Your task to perform on an android device: toggle pop-ups in chrome Image 0: 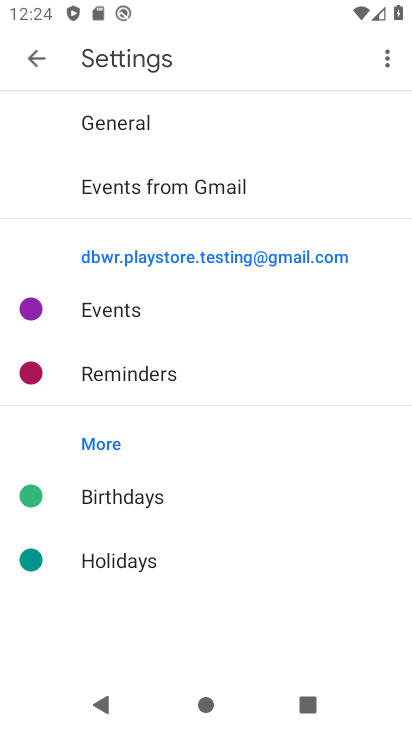
Step 0: press back button
Your task to perform on an android device: toggle pop-ups in chrome Image 1: 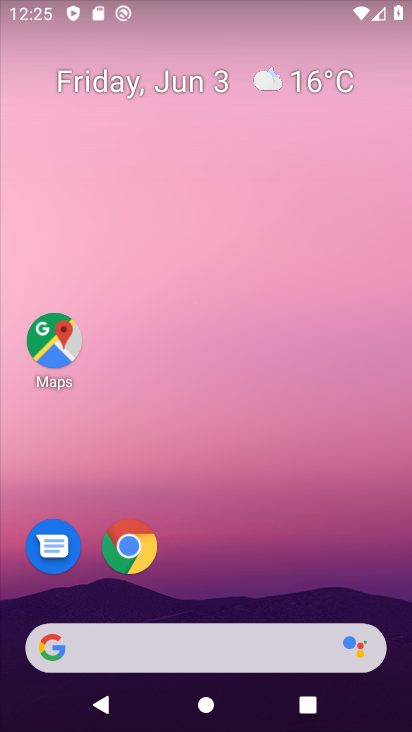
Step 1: click (137, 546)
Your task to perform on an android device: toggle pop-ups in chrome Image 2: 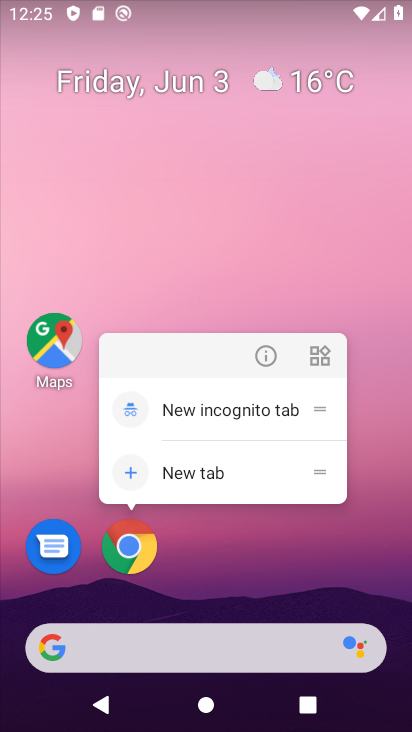
Step 2: click (134, 560)
Your task to perform on an android device: toggle pop-ups in chrome Image 3: 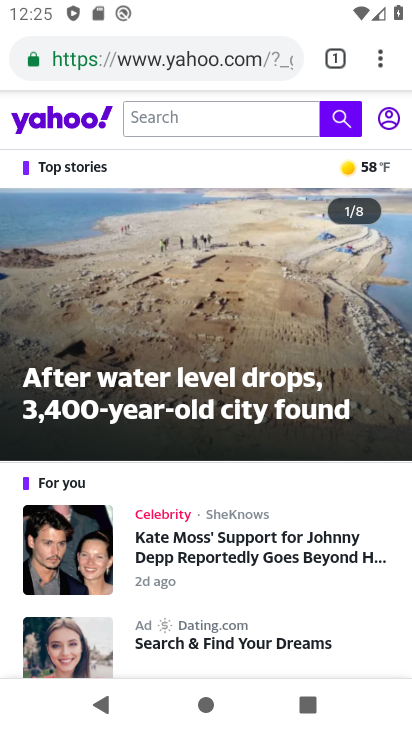
Step 3: drag from (377, 57) to (174, 569)
Your task to perform on an android device: toggle pop-ups in chrome Image 4: 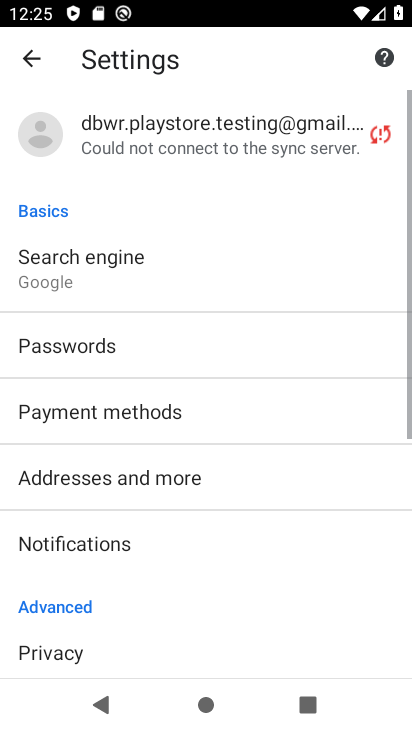
Step 4: drag from (158, 639) to (225, 60)
Your task to perform on an android device: toggle pop-ups in chrome Image 5: 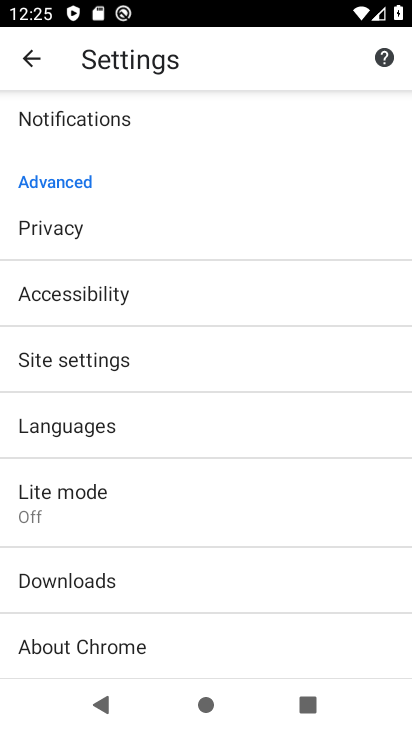
Step 5: click (94, 367)
Your task to perform on an android device: toggle pop-ups in chrome Image 6: 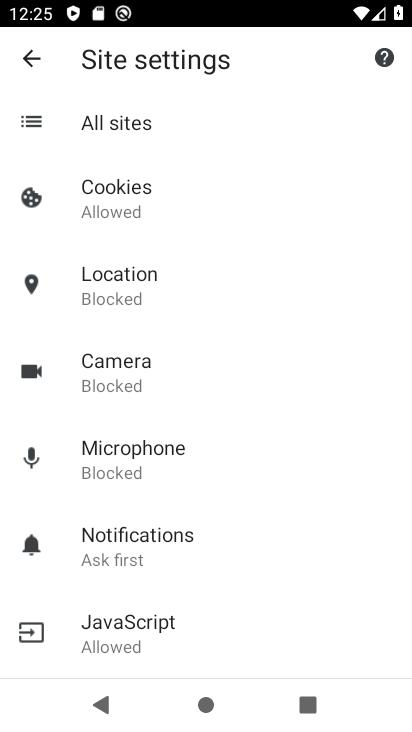
Step 6: drag from (151, 608) to (231, 119)
Your task to perform on an android device: toggle pop-ups in chrome Image 7: 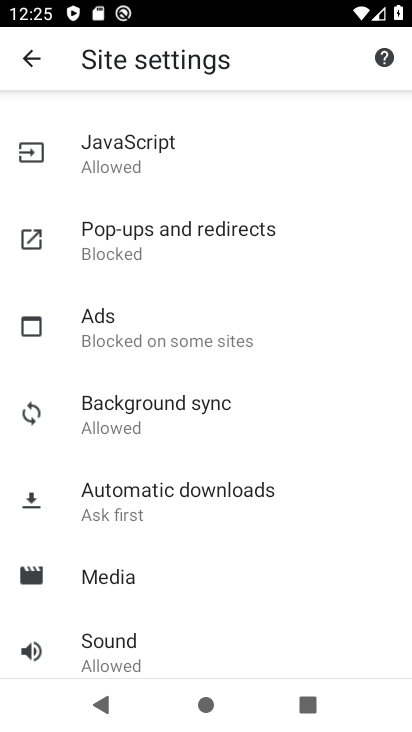
Step 7: click (150, 239)
Your task to perform on an android device: toggle pop-ups in chrome Image 8: 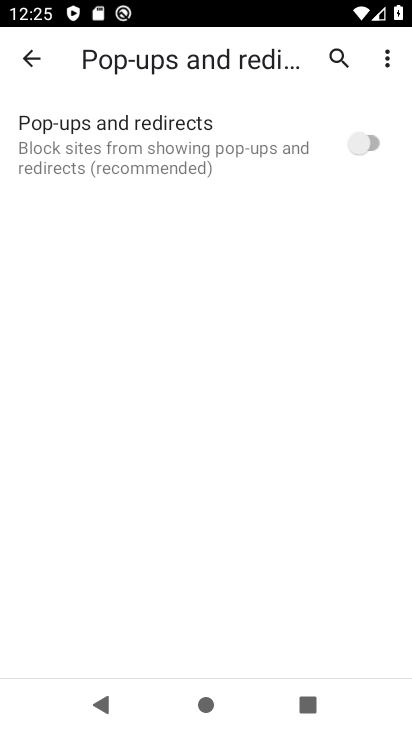
Step 8: click (365, 143)
Your task to perform on an android device: toggle pop-ups in chrome Image 9: 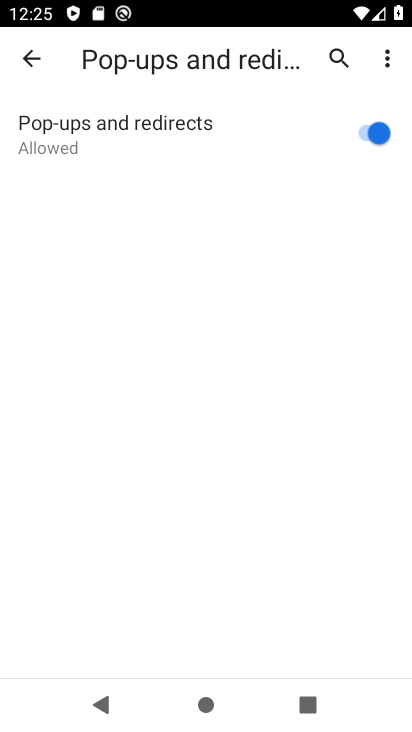
Step 9: task complete